Your task to perform on an android device: Search for sushi restaurants on Maps Image 0: 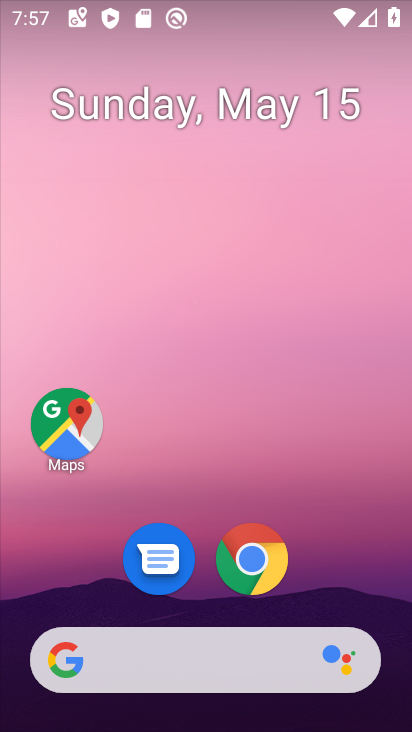
Step 0: click (60, 434)
Your task to perform on an android device: Search for sushi restaurants on Maps Image 1: 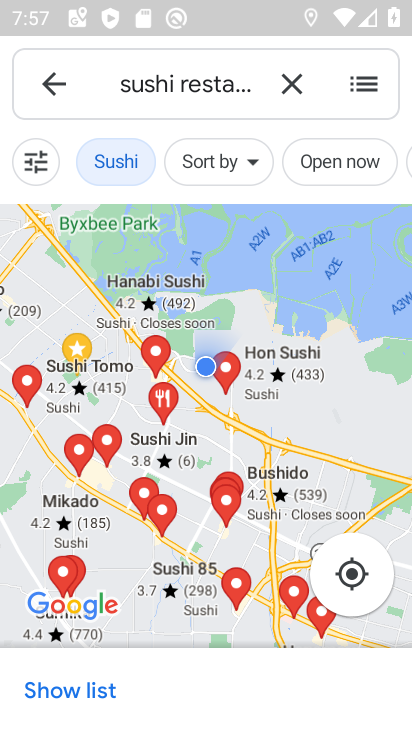
Step 1: task complete